Your task to perform on an android device: move an email to a new category in the gmail app Image 0: 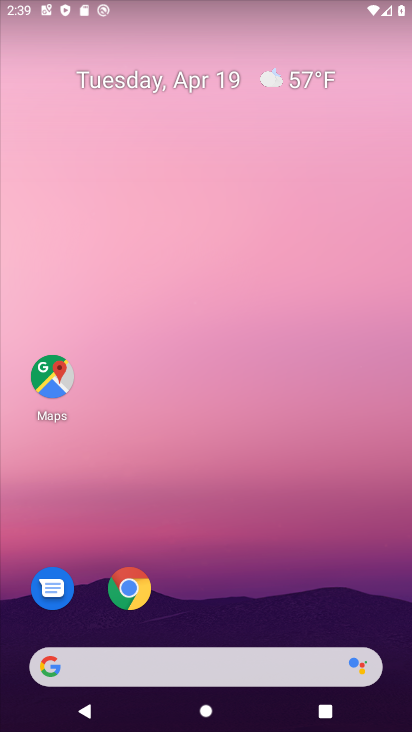
Step 0: drag from (334, 550) to (308, 45)
Your task to perform on an android device: move an email to a new category in the gmail app Image 1: 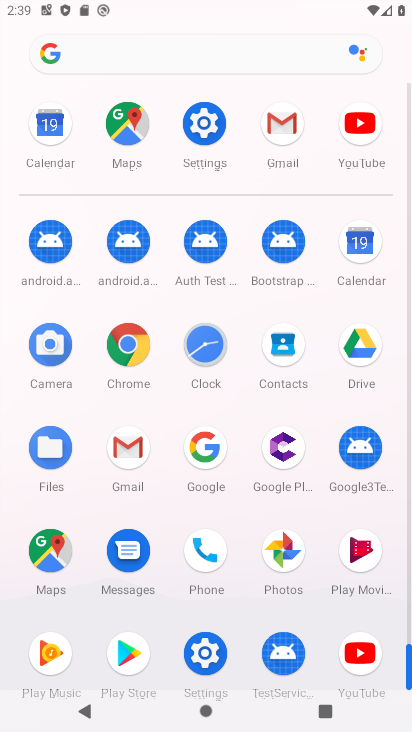
Step 1: click (284, 118)
Your task to perform on an android device: move an email to a new category in the gmail app Image 2: 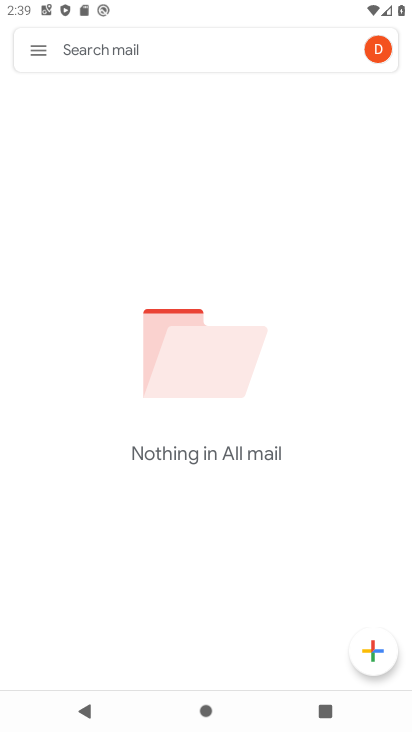
Step 2: task complete